Your task to perform on an android device: Open location settings Image 0: 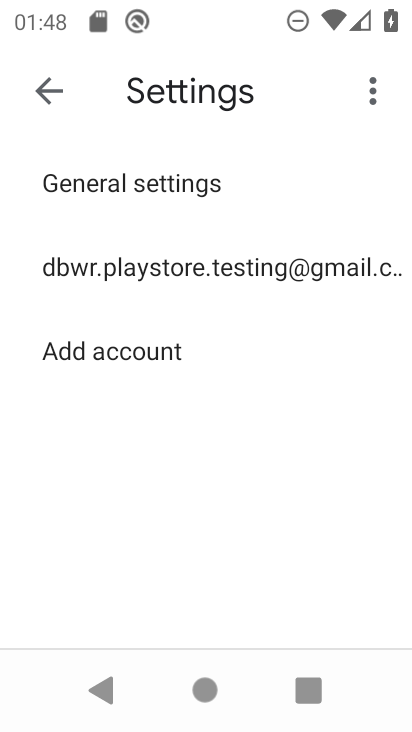
Step 0: press home button
Your task to perform on an android device: Open location settings Image 1: 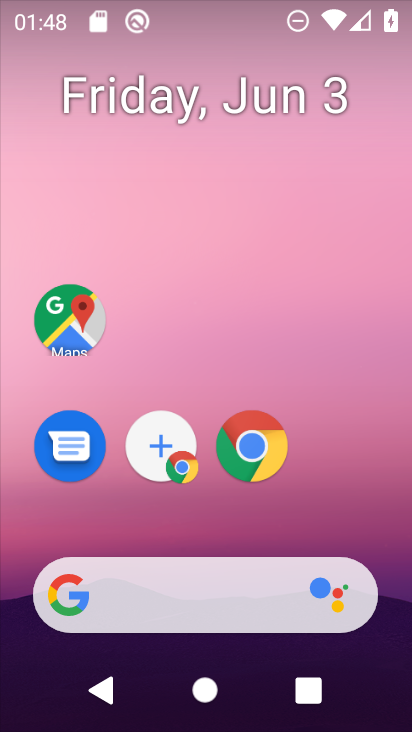
Step 1: drag from (246, 647) to (231, 8)
Your task to perform on an android device: Open location settings Image 2: 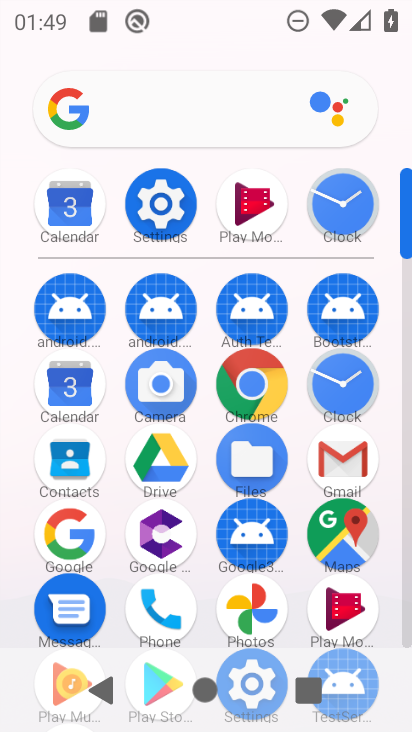
Step 2: click (163, 211)
Your task to perform on an android device: Open location settings Image 3: 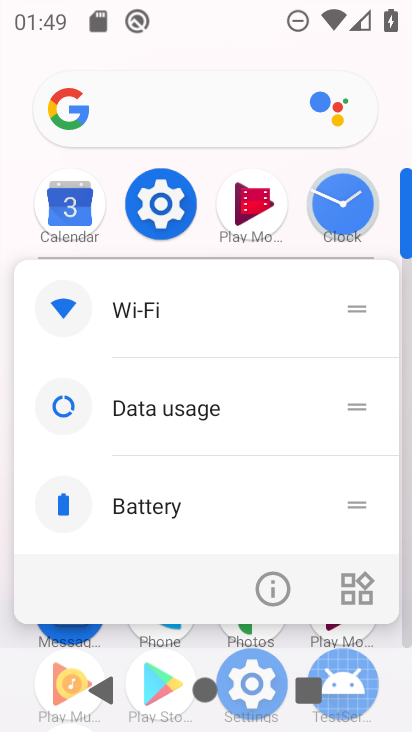
Step 3: click (167, 192)
Your task to perform on an android device: Open location settings Image 4: 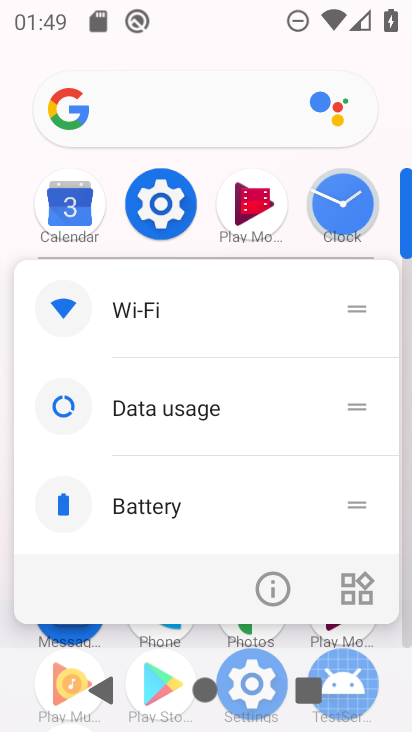
Step 4: click (167, 192)
Your task to perform on an android device: Open location settings Image 5: 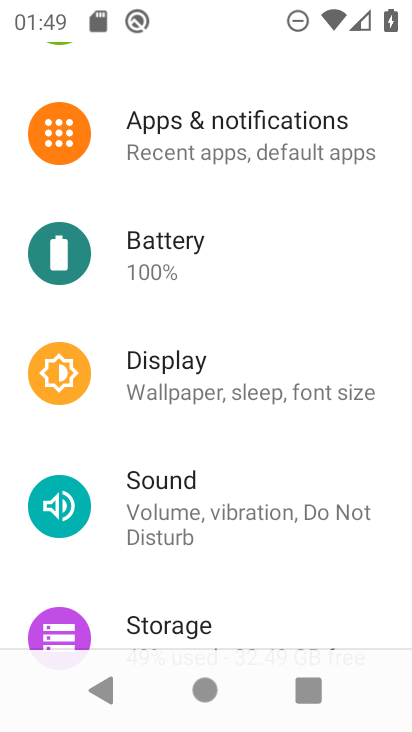
Step 5: drag from (218, 611) to (265, 85)
Your task to perform on an android device: Open location settings Image 6: 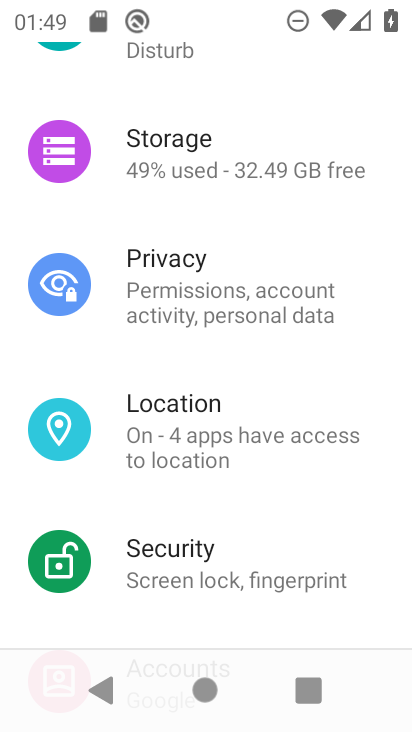
Step 6: click (216, 450)
Your task to perform on an android device: Open location settings Image 7: 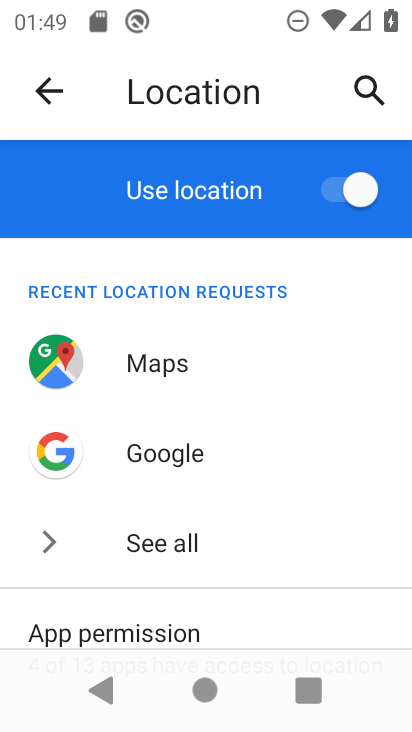
Step 7: task complete